Your task to perform on an android device: Open network settings Image 0: 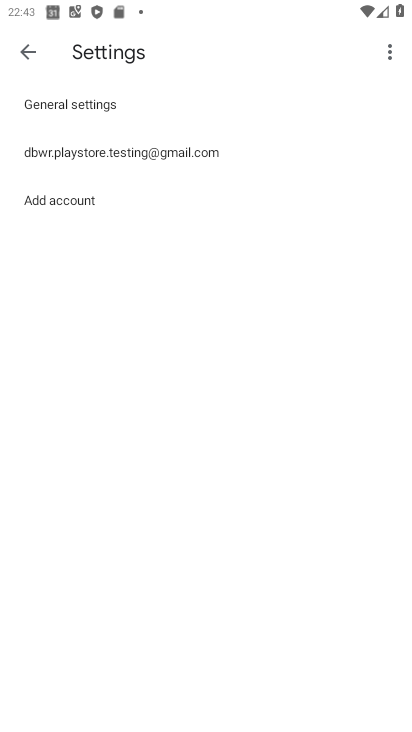
Step 0: press home button
Your task to perform on an android device: Open network settings Image 1: 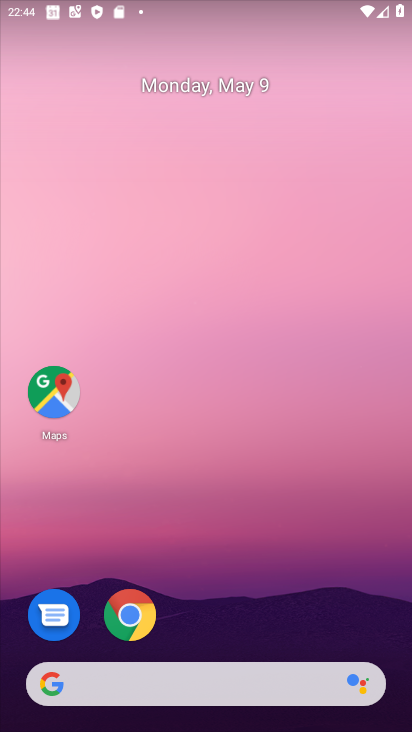
Step 1: drag from (193, 442) to (259, 145)
Your task to perform on an android device: Open network settings Image 2: 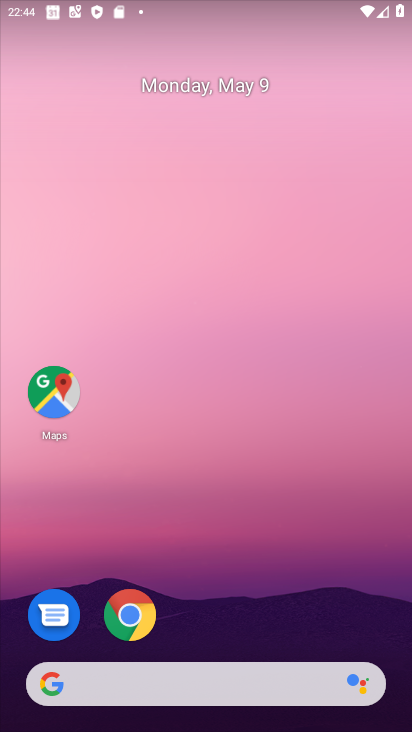
Step 2: drag from (191, 621) to (288, 128)
Your task to perform on an android device: Open network settings Image 3: 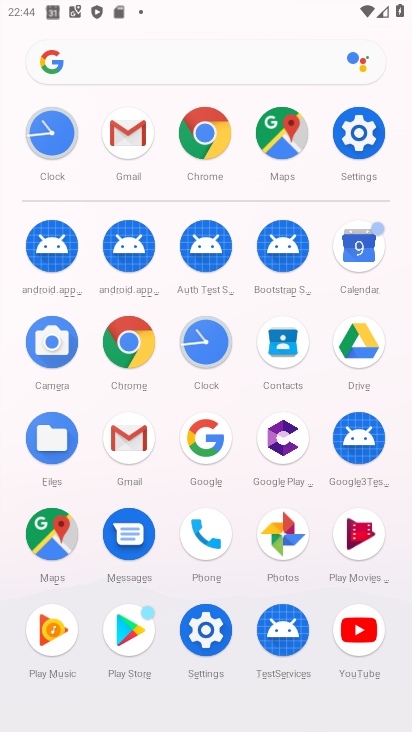
Step 3: click (353, 132)
Your task to perform on an android device: Open network settings Image 4: 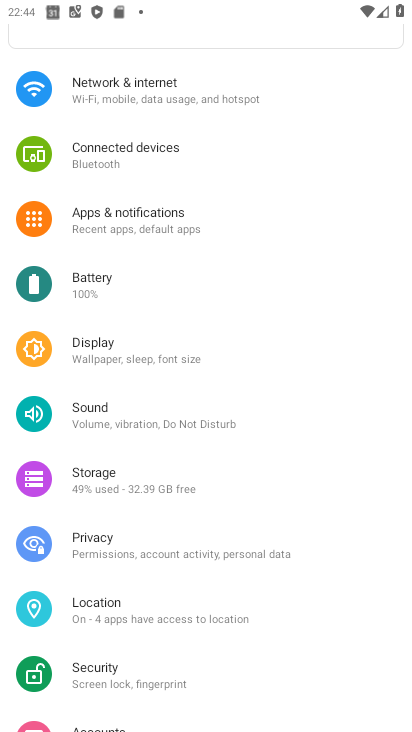
Step 4: click (209, 104)
Your task to perform on an android device: Open network settings Image 5: 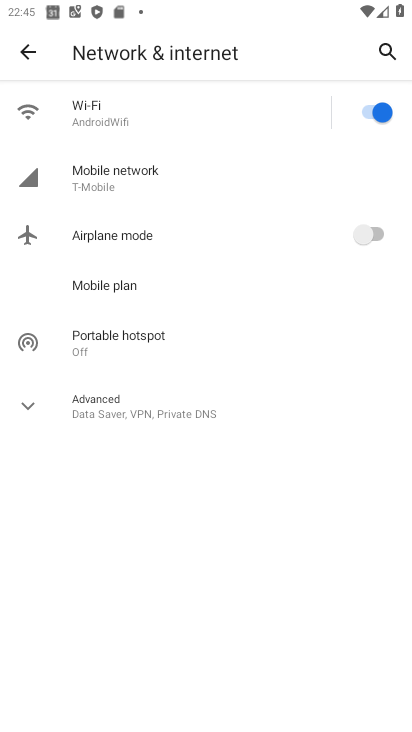
Step 5: click (99, 183)
Your task to perform on an android device: Open network settings Image 6: 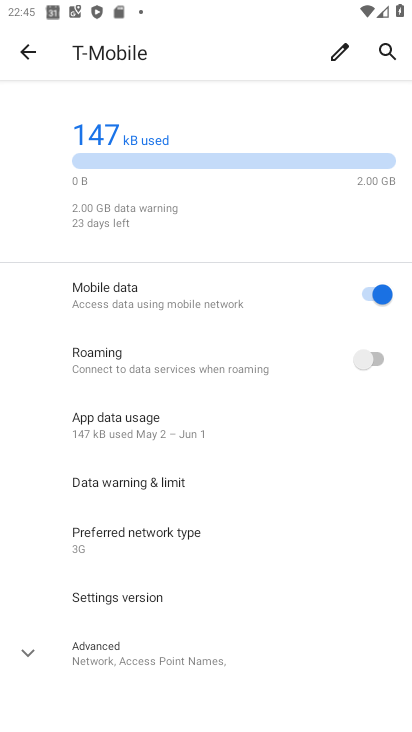
Step 6: task complete